Your task to perform on an android device: find which apps use the phone's location Image 0: 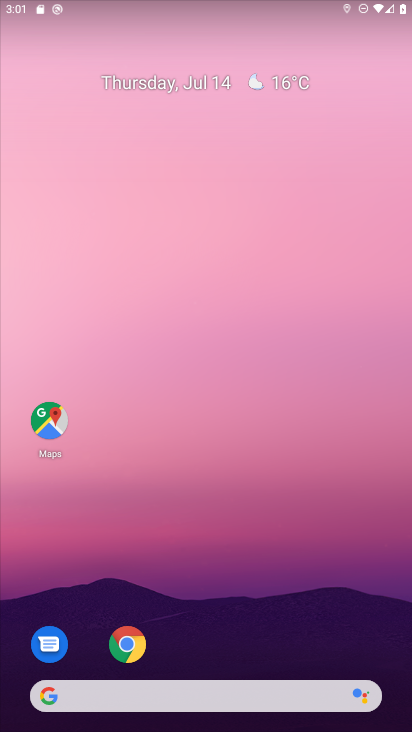
Step 0: drag from (190, 650) to (221, 245)
Your task to perform on an android device: find which apps use the phone's location Image 1: 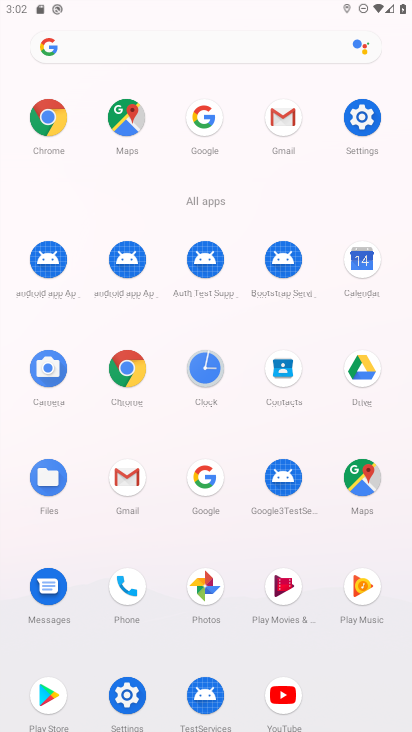
Step 1: click (363, 126)
Your task to perform on an android device: find which apps use the phone's location Image 2: 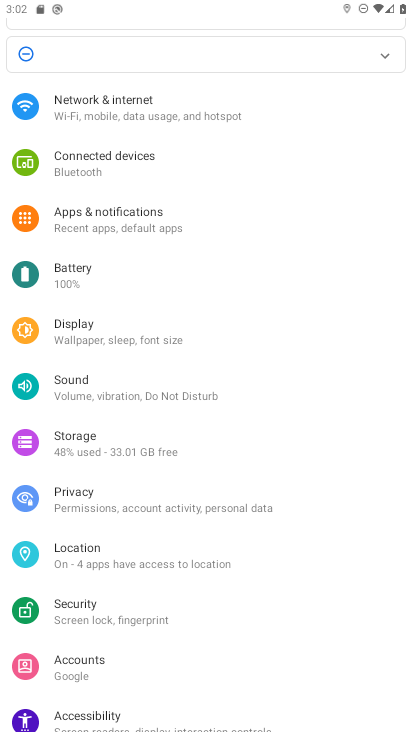
Step 2: click (109, 551)
Your task to perform on an android device: find which apps use the phone's location Image 3: 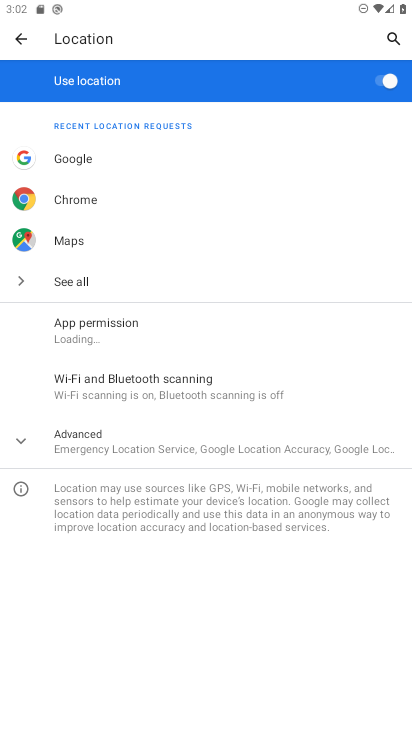
Step 3: click (101, 321)
Your task to perform on an android device: find which apps use the phone's location Image 4: 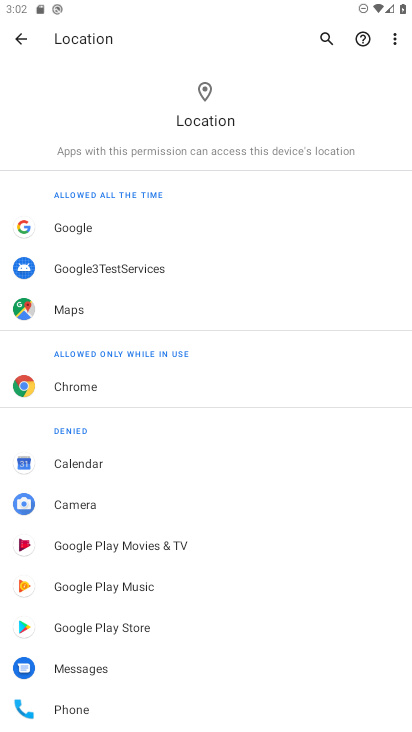
Step 4: task complete